Your task to perform on an android device: Open Google Chrome Image 0: 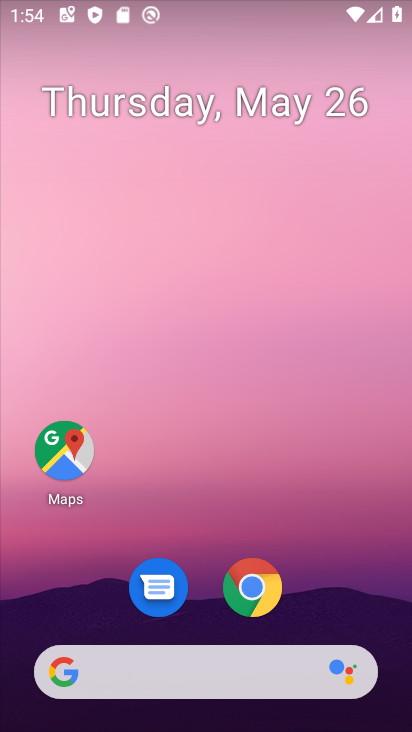
Step 0: click (263, 588)
Your task to perform on an android device: Open Google Chrome Image 1: 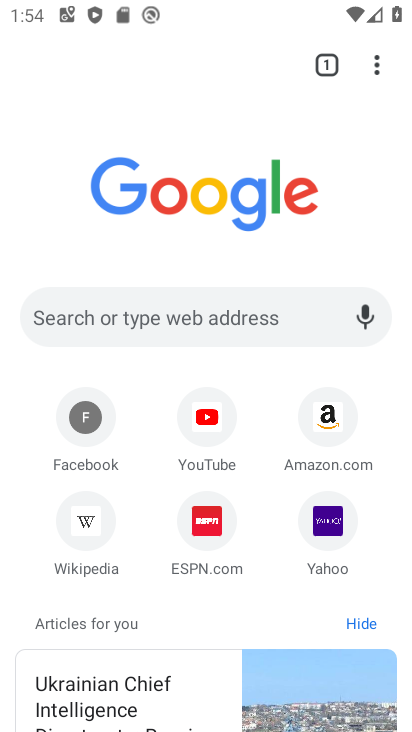
Step 1: task complete